Your task to perform on an android device: Go to eBay Image 0: 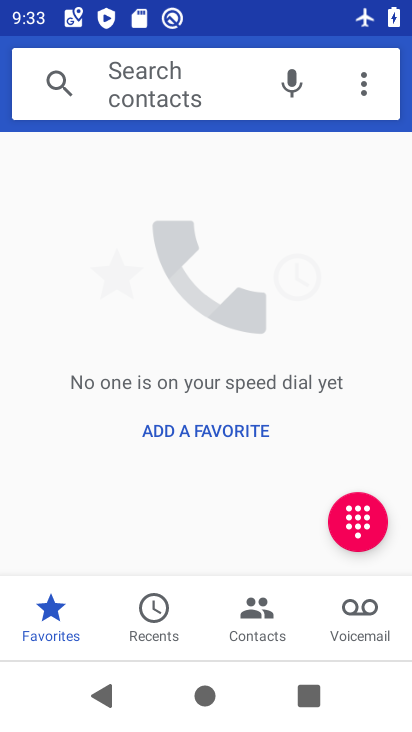
Step 0: press home button
Your task to perform on an android device: Go to eBay Image 1: 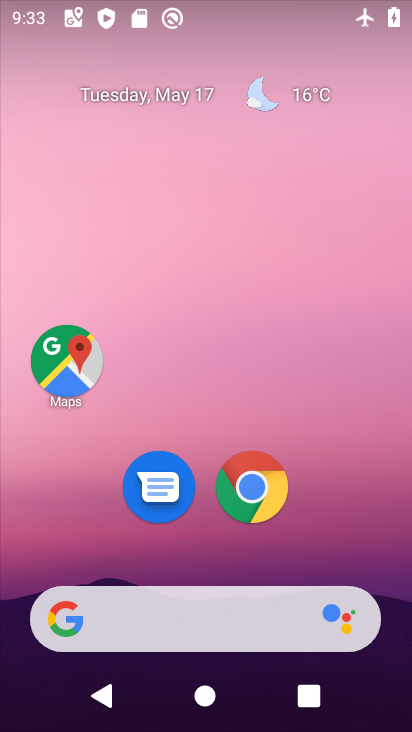
Step 1: click (262, 492)
Your task to perform on an android device: Go to eBay Image 2: 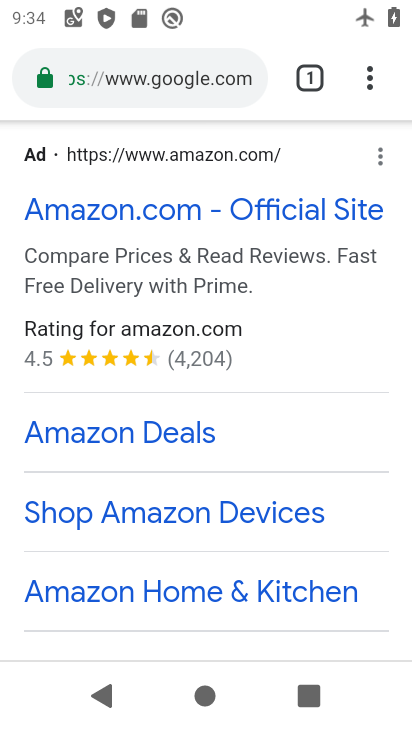
Step 2: click (193, 80)
Your task to perform on an android device: Go to eBay Image 3: 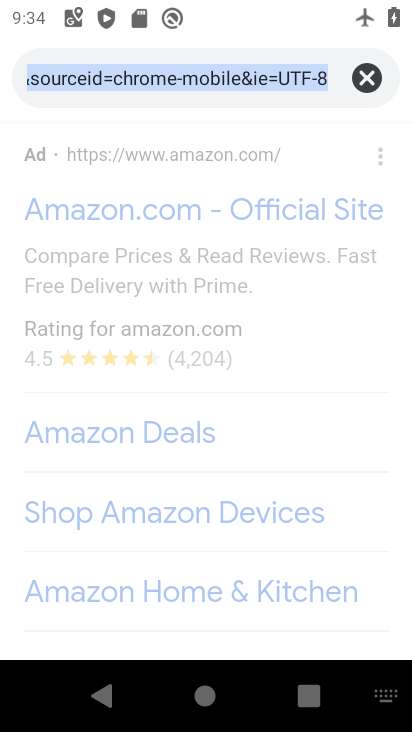
Step 3: type "eBay"
Your task to perform on an android device: Go to eBay Image 4: 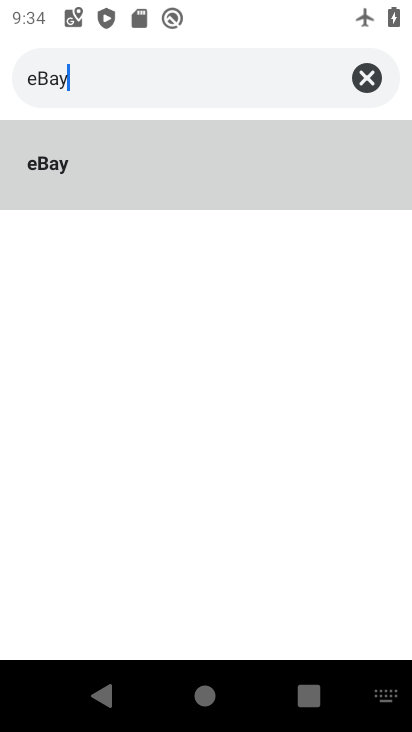
Step 4: click (104, 155)
Your task to perform on an android device: Go to eBay Image 5: 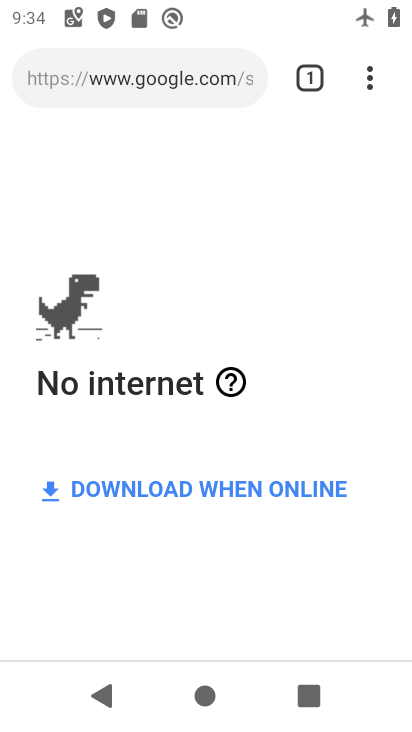
Step 5: task complete